Your task to perform on an android device: Open sound settings Image 0: 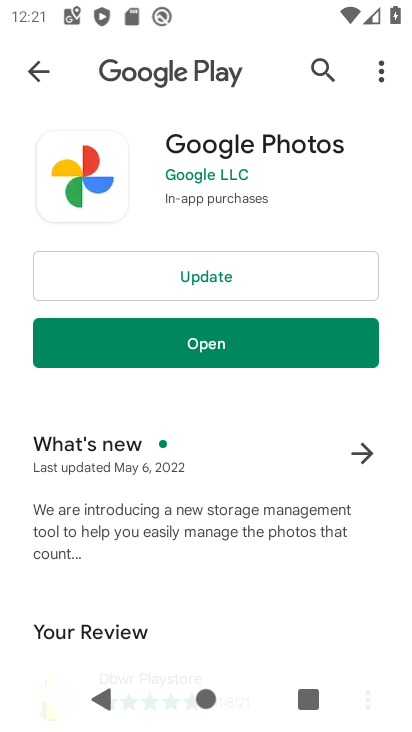
Step 0: press home button
Your task to perform on an android device: Open sound settings Image 1: 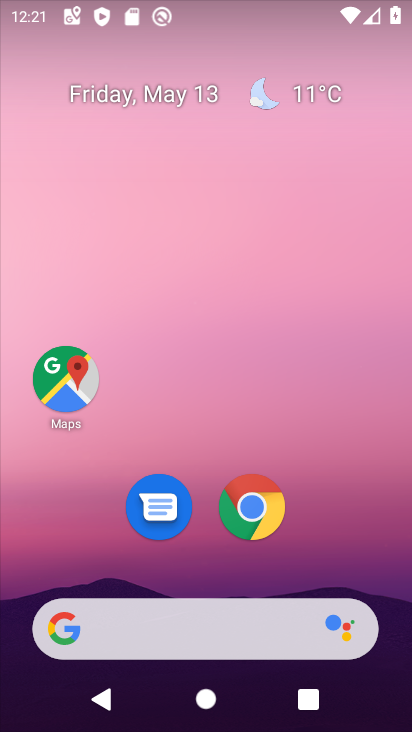
Step 1: drag from (178, 571) to (112, 46)
Your task to perform on an android device: Open sound settings Image 2: 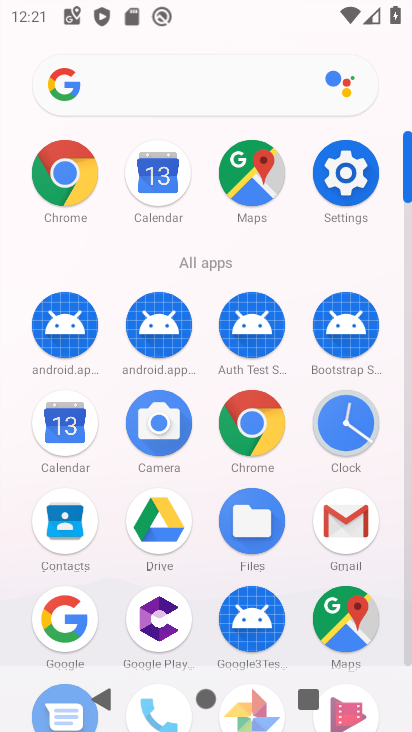
Step 2: click (322, 157)
Your task to perform on an android device: Open sound settings Image 3: 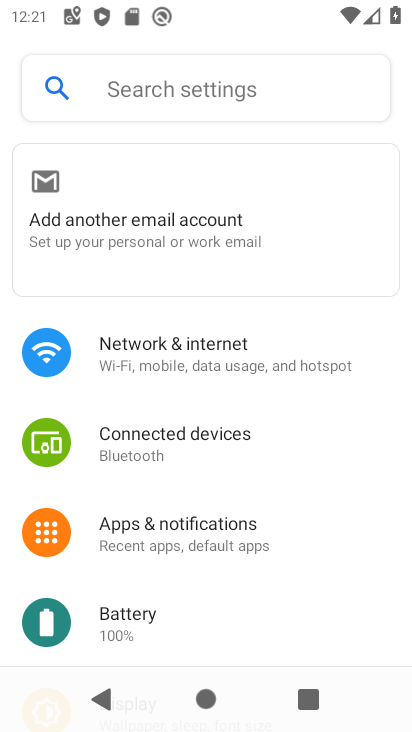
Step 3: drag from (200, 612) to (140, 194)
Your task to perform on an android device: Open sound settings Image 4: 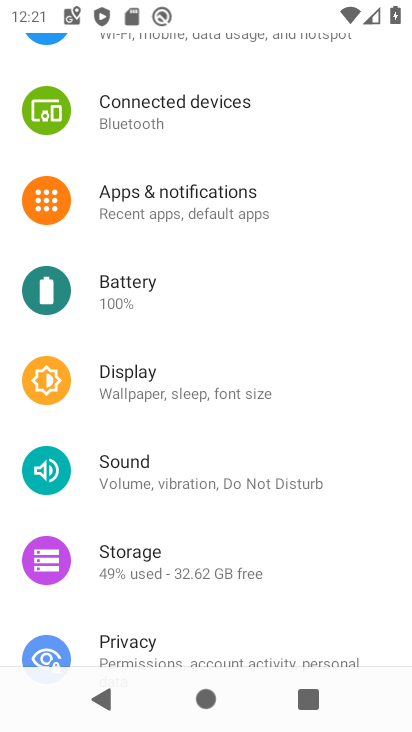
Step 4: click (156, 451)
Your task to perform on an android device: Open sound settings Image 5: 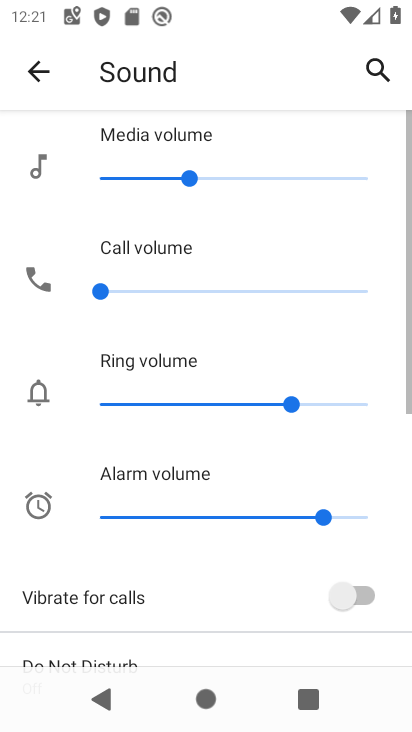
Step 5: task complete